Your task to perform on an android device: Open the phone app and click the voicemail tab. Image 0: 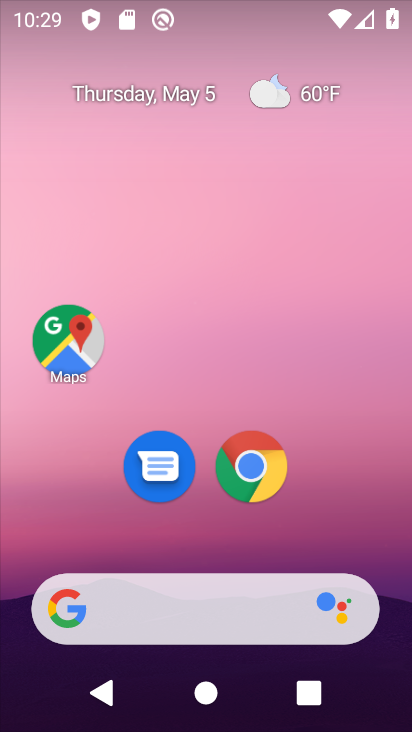
Step 0: drag from (187, 561) to (231, 187)
Your task to perform on an android device: Open the phone app and click the voicemail tab. Image 1: 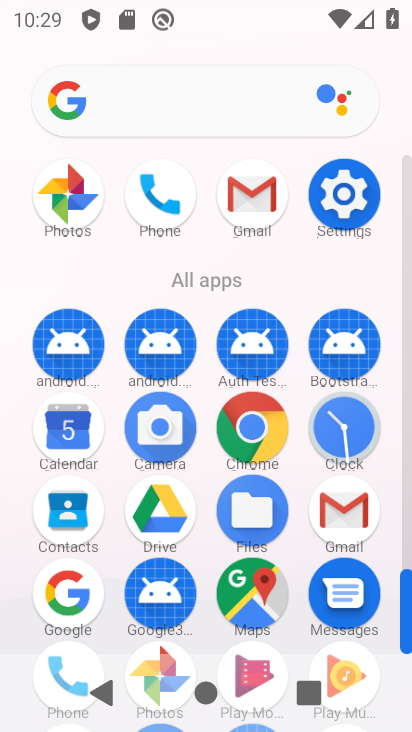
Step 1: click (145, 208)
Your task to perform on an android device: Open the phone app and click the voicemail tab. Image 2: 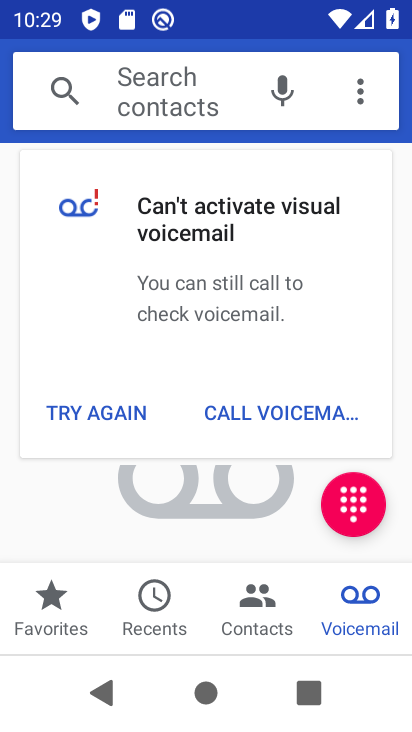
Step 2: task complete